Your task to perform on an android device: check android version Image 0: 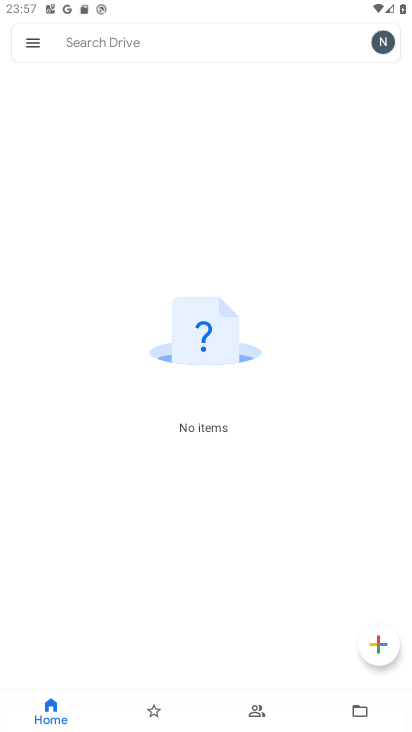
Step 0: press home button
Your task to perform on an android device: check android version Image 1: 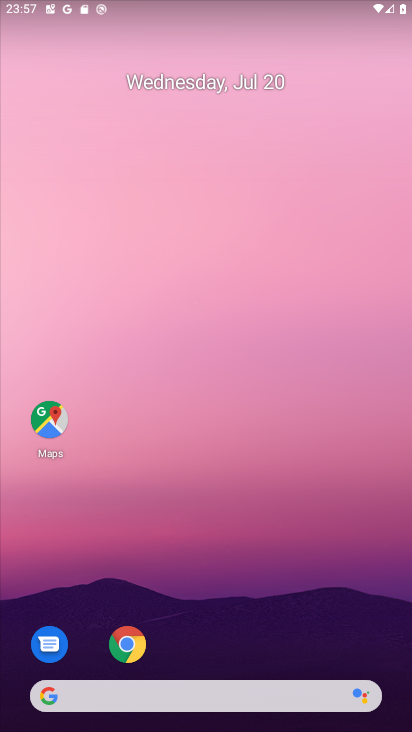
Step 1: drag from (156, 725) to (278, 106)
Your task to perform on an android device: check android version Image 2: 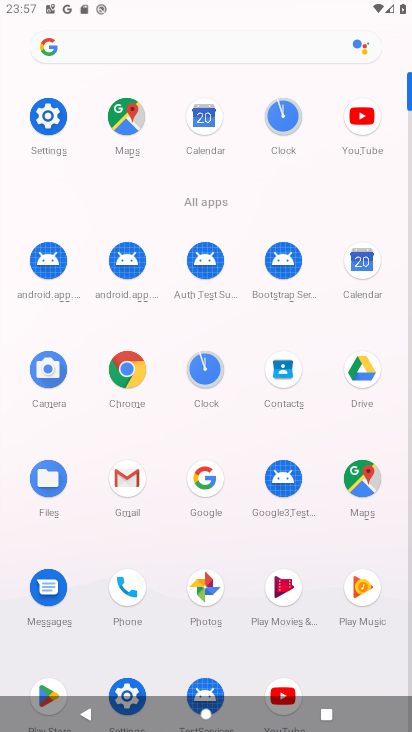
Step 2: click (119, 681)
Your task to perform on an android device: check android version Image 3: 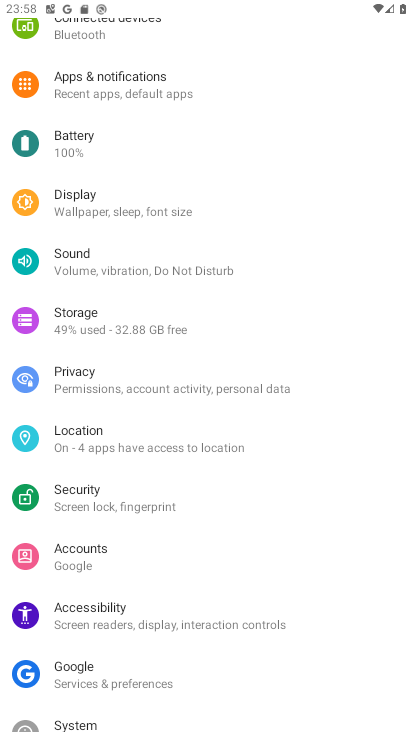
Step 3: drag from (170, 570) to (191, 33)
Your task to perform on an android device: check android version Image 4: 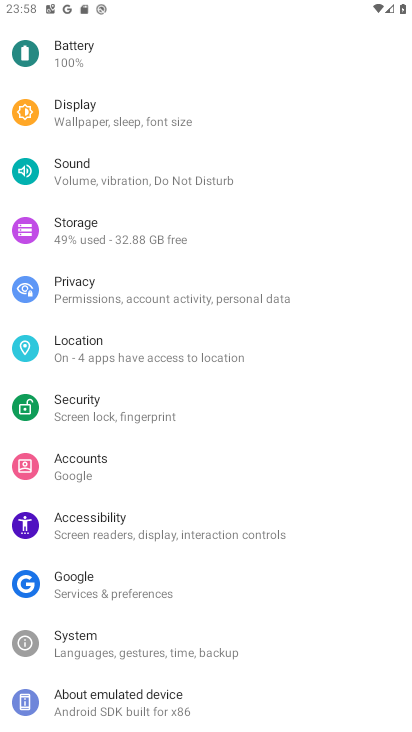
Step 4: drag from (229, 448) to (294, 2)
Your task to perform on an android device: check android version Image 5: 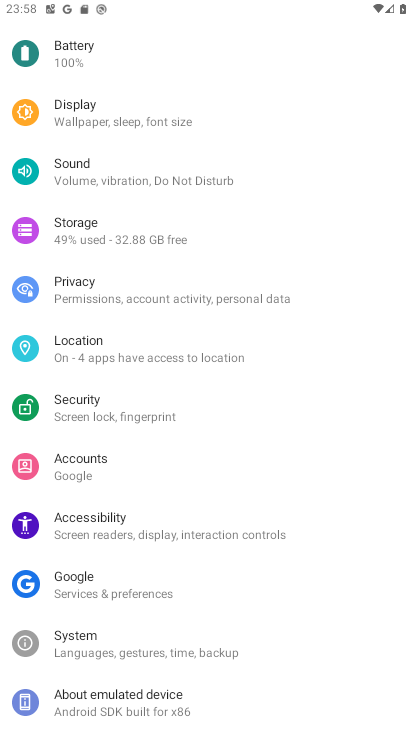
Step 5: click (177, 692)
Your task to perform on an android device: check android version Image 6: 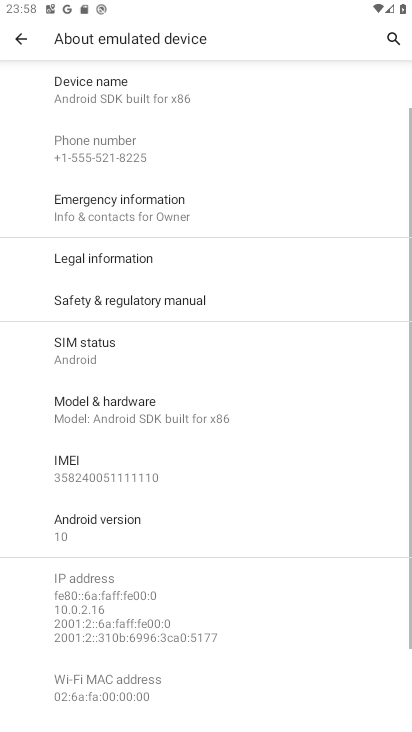
Step 6: task complete